Your task to perform on an android device: Go to Maps Image 0: 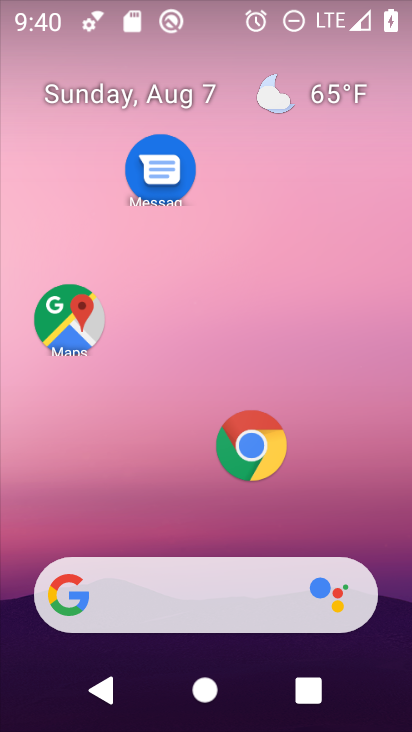
Step 0: drag from (190, 530) to (238, 83)
Your task to perform on an android device: Go to Maps Image 1: 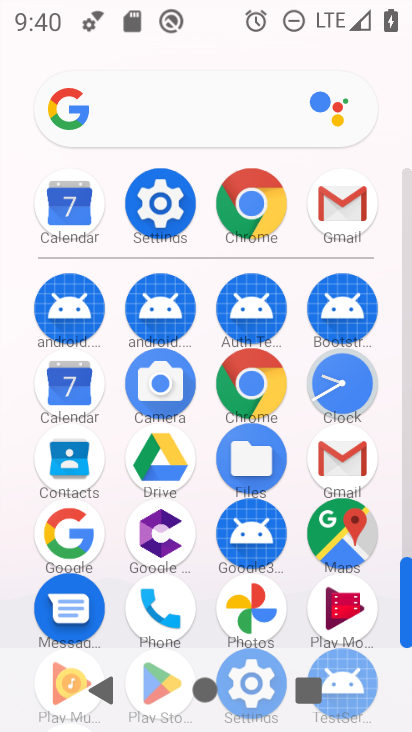
Step 1: click (338, 527)
Your task to perform on an android device: Go to Maps Image 2: 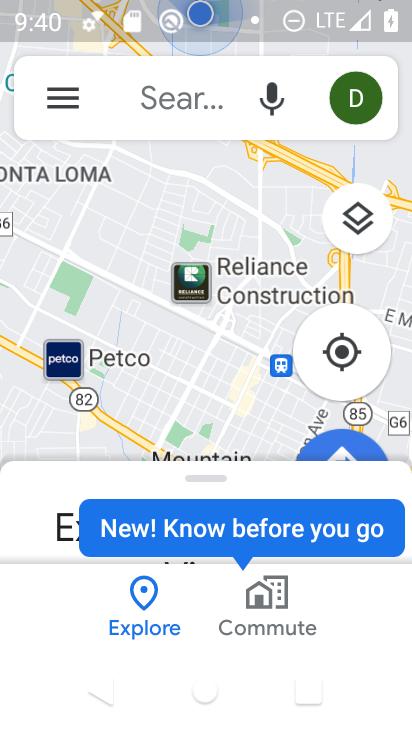
Step 2: click (257, 599)
Your task to perform on an android device: Go to Maps Image 3: 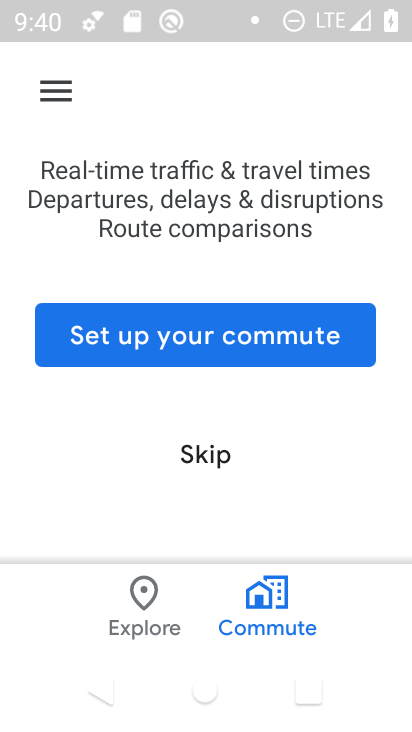
Step 3: click (212, 445)
Your task to perform on an android device: Go to Maps Image 4: 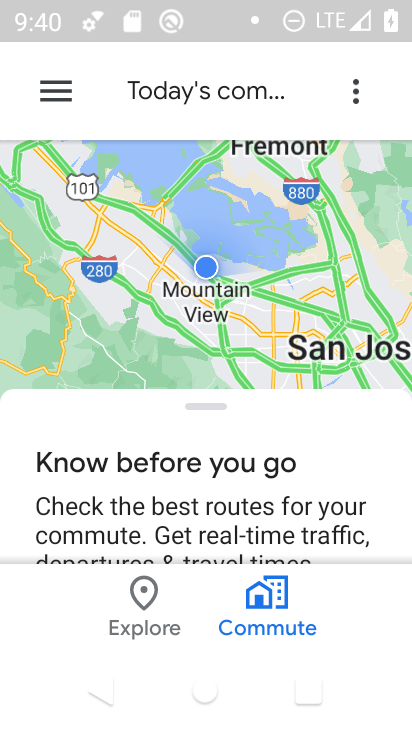
Step 4: click (359, 91)
Your task to perform on an android device: Go to Maps Image 5: 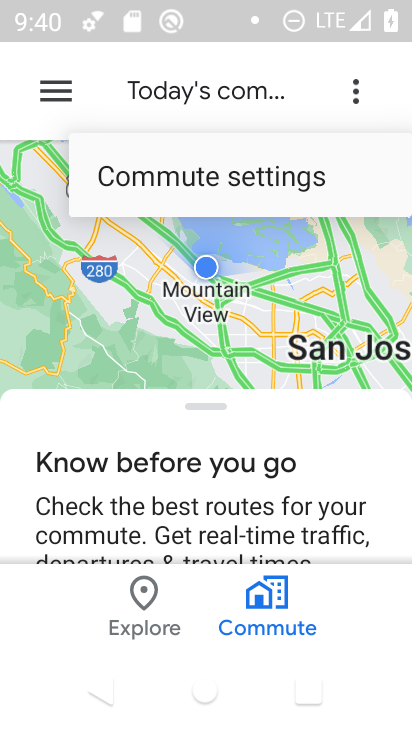
Step 5: click (198, 281)
Your task to perform on an android device: Go to Maps Image 6: 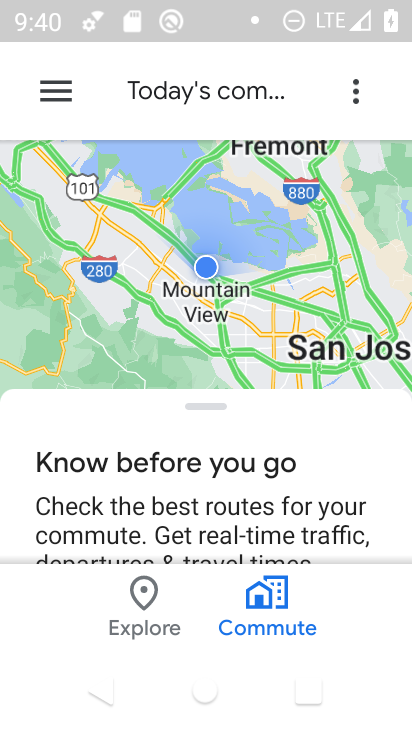
Step 6: click (41, 85)
Your task to perform on an android device: Go to Maps Image 7: 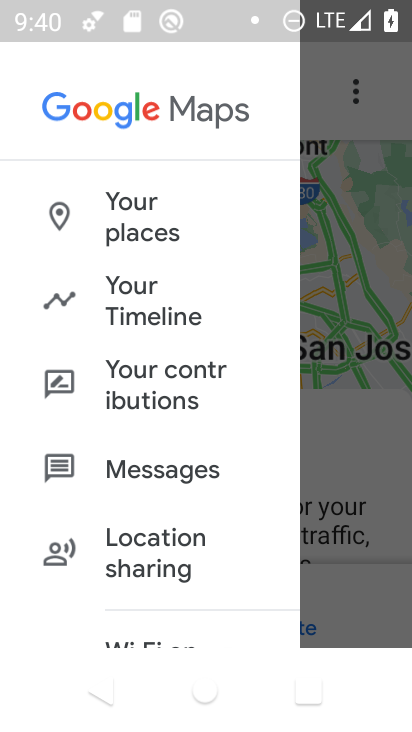
Step 7: click (359, 329)
Your task to perform on an android device: Go to Maps Image 8: 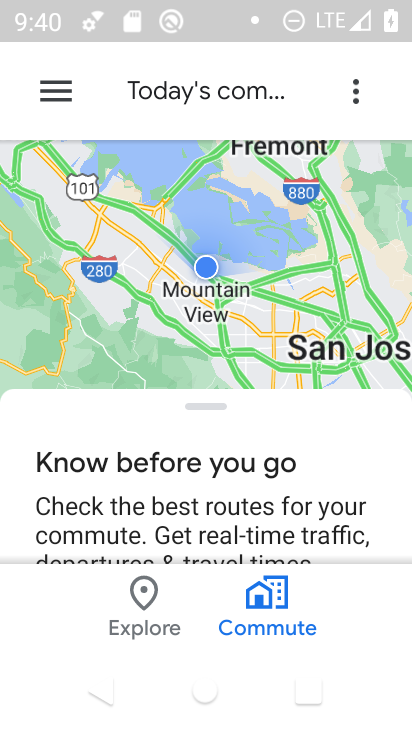
Step 8: click (140, 588)
Your task to perform on an android device: Go to Maps Image 9: 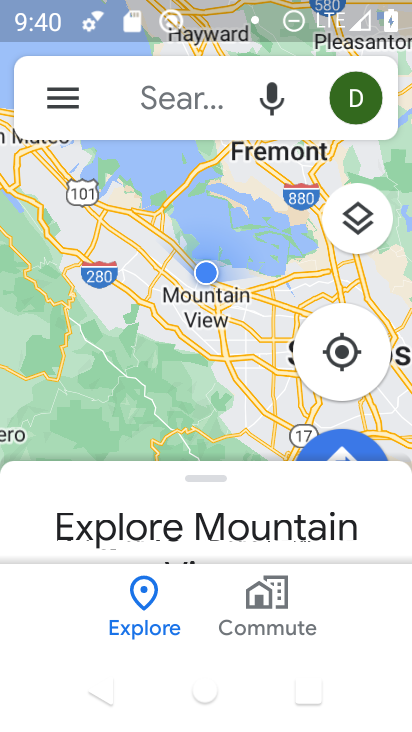
Step 9: task complete